Your task to perform on an android device: check out phone information Image 0: 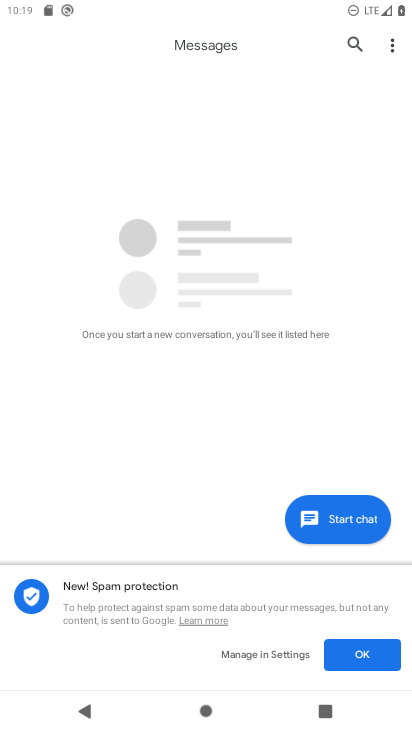
Step 0: press home button
Your task to perform on an android device: check out phone information Image 1: 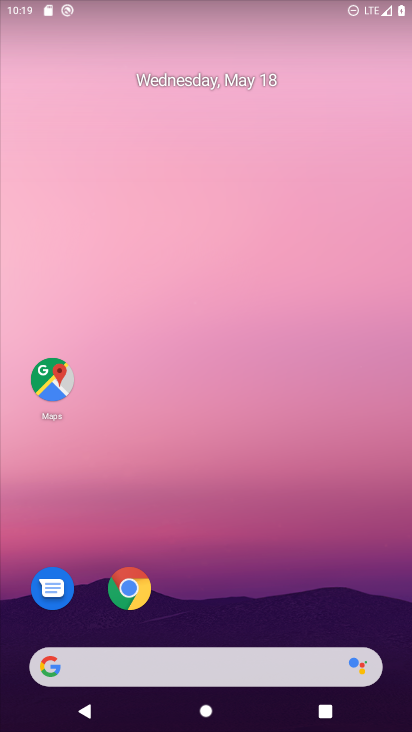
Step 1: drag from (266, 629) to (223, 12)
Your task to perform on an android device: check out phone information Image 2: 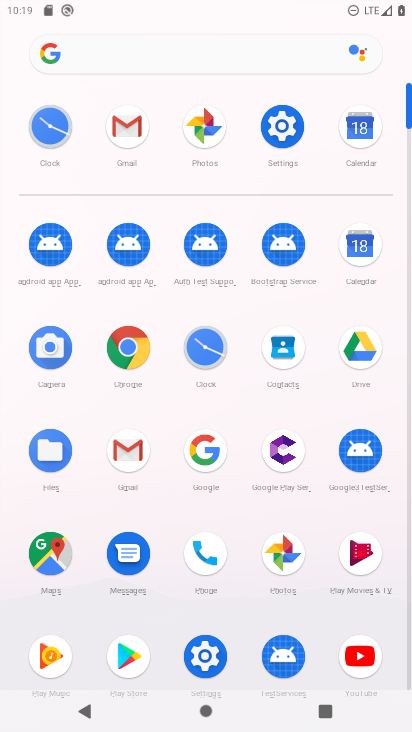
Step 2: click (286, 142)
Your task to perform on an android device: check out phone information Image 3: 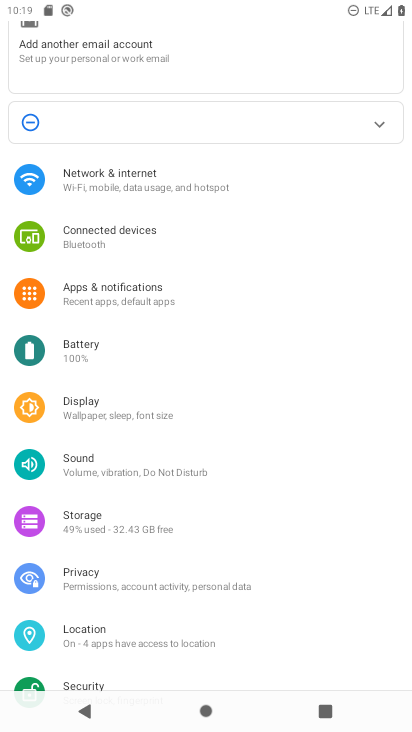
Step 3: drag from (313, 575) to (289, 184)
Your task to perform on an android device: check out phone information Image 4: 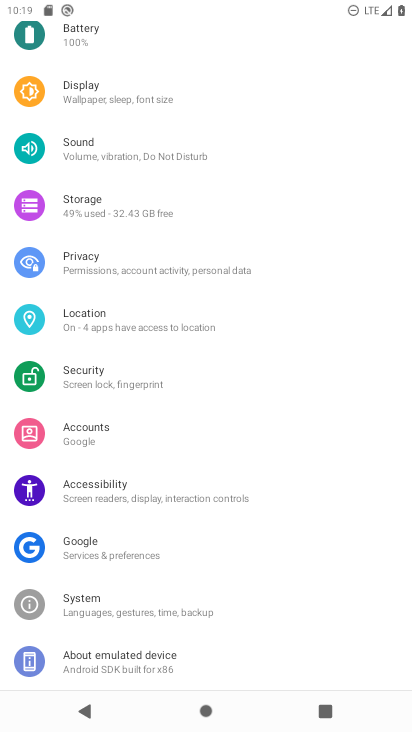
Step 4: click (135, 654)
Your task to perform on an android device: check out phone information Image 5: 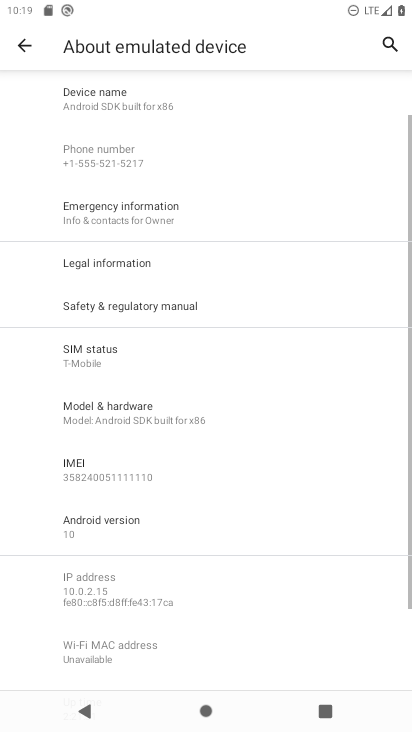
Step 5: task complete